Your task to perform on an android device: Is it going to rain today? Image 0: 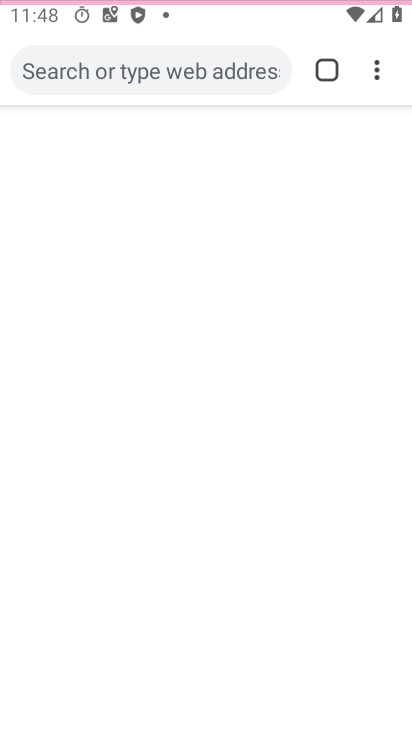
Step 0: drag from (205, 601) to (339, 8)
Your task to perform on an android device: Is it going to rain today? Image 1: 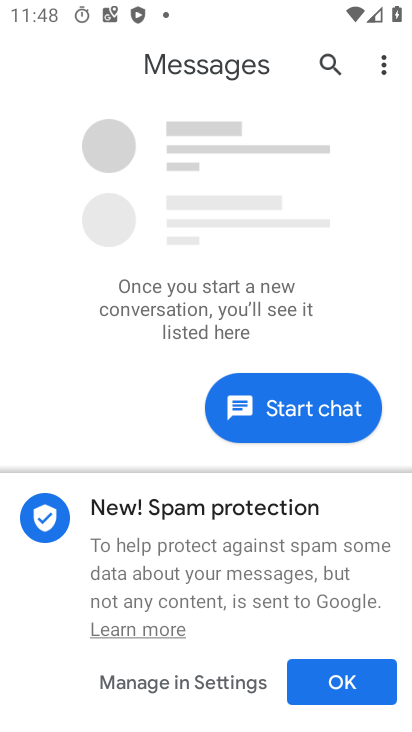
Step 1: press home button
Your task to perform on an android device: Is it going to rain today? Image 2: 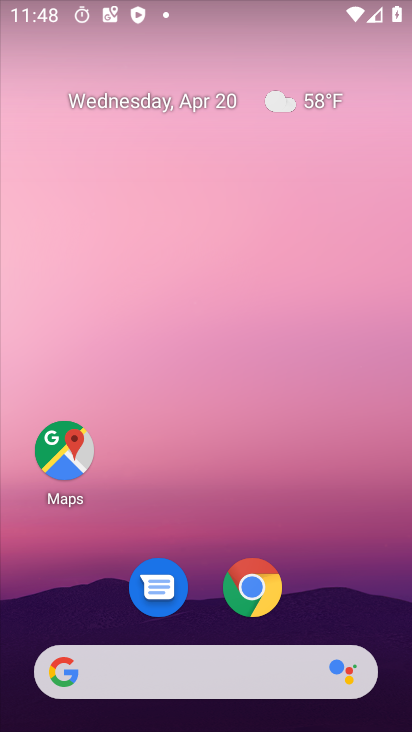
Step 2: click (305, 112)
Your task to perform on an android device: Is it going to rain today? Image 3: 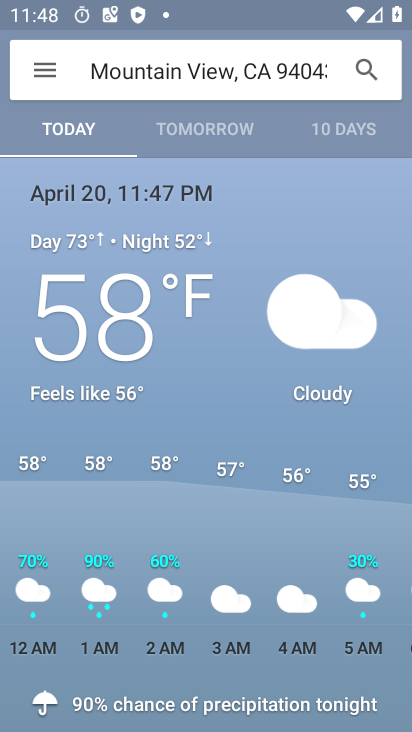
Step 3: task complete